Your task to perform on an android device: turn on airplane mode Image 0: 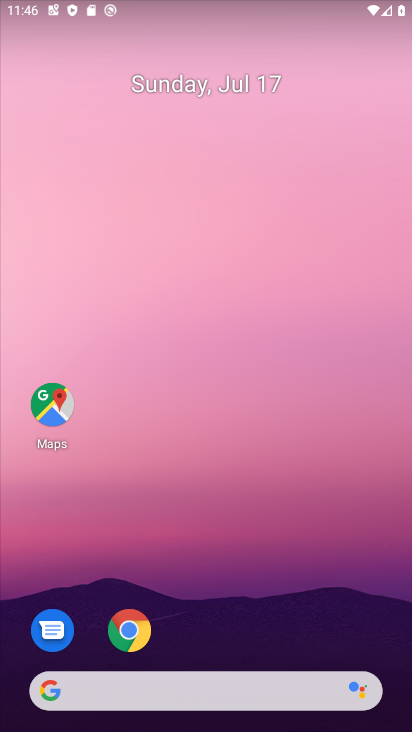
Step 0: drag from (191, 26) to (289, 728)
Your task to perform on an android device: turn on airplane mode Image 1: 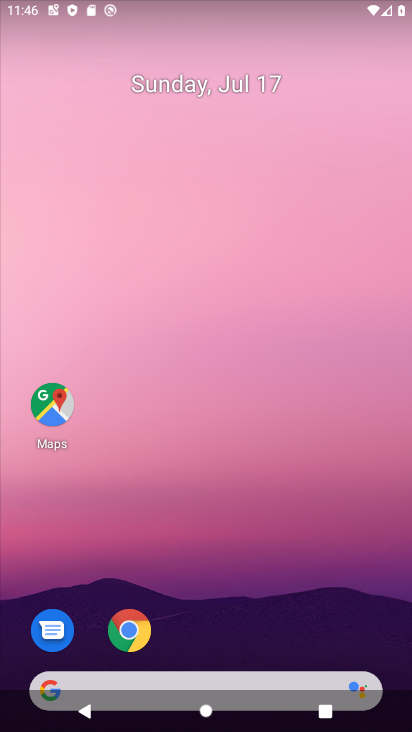
Step 1: drag from (212, 0) to (301, 537)
Your task to perform on an android device: turn on airplane mode Image 2: 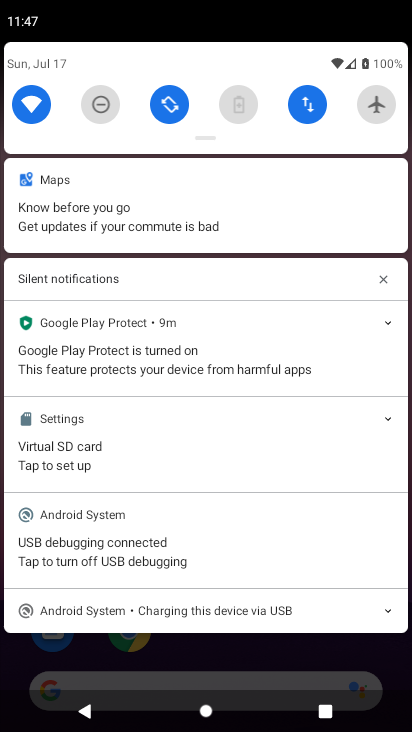
Step 2: click (371, 109)
Your task to perform on an android device: turn on airplane mode Image 3: 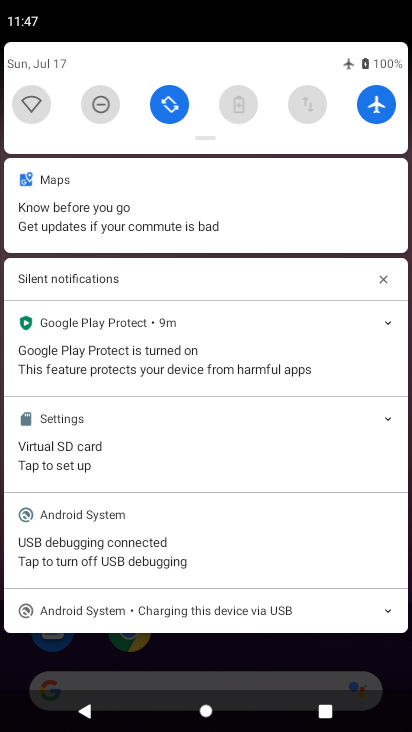
Step 3: task complete